Your task to perform on an android device: Check the weather Image 0: 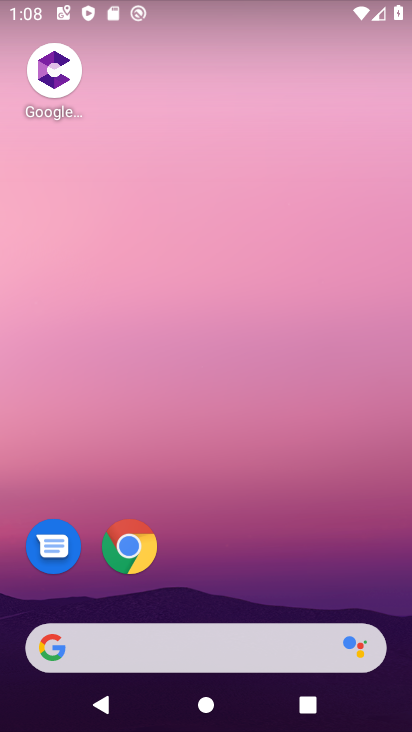
Step 0: click (222, 646)
Your task to perform on an android device: Check the weather Image 1: 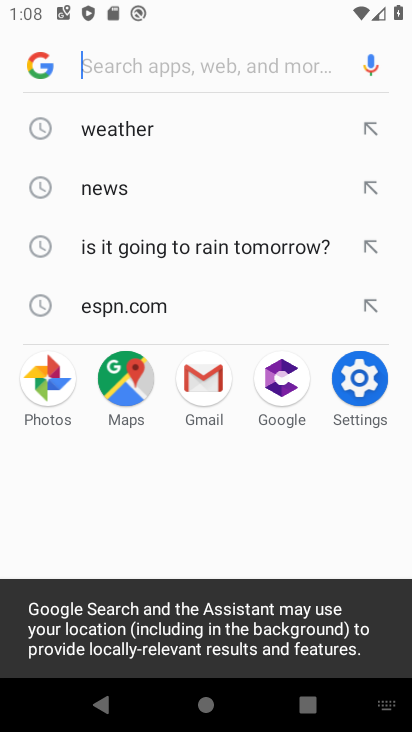
Step 1: click (130, 124)
Your task to perform on an android device: Check the weather Image 2: 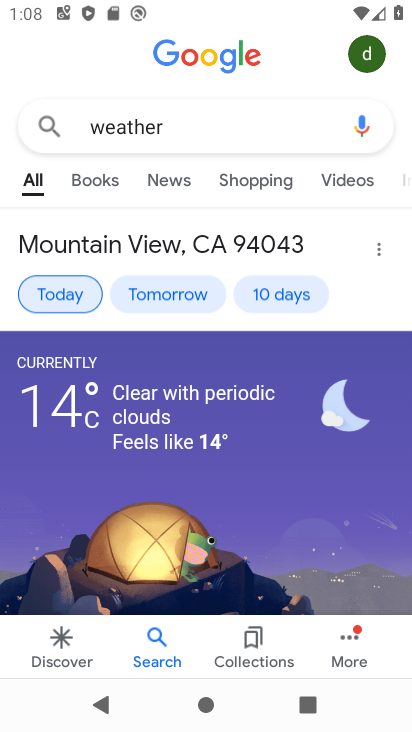
Step 2: task complete